Your task to perform on an android device: Open the Play Movies app and select the watchlist tab. Image 0: 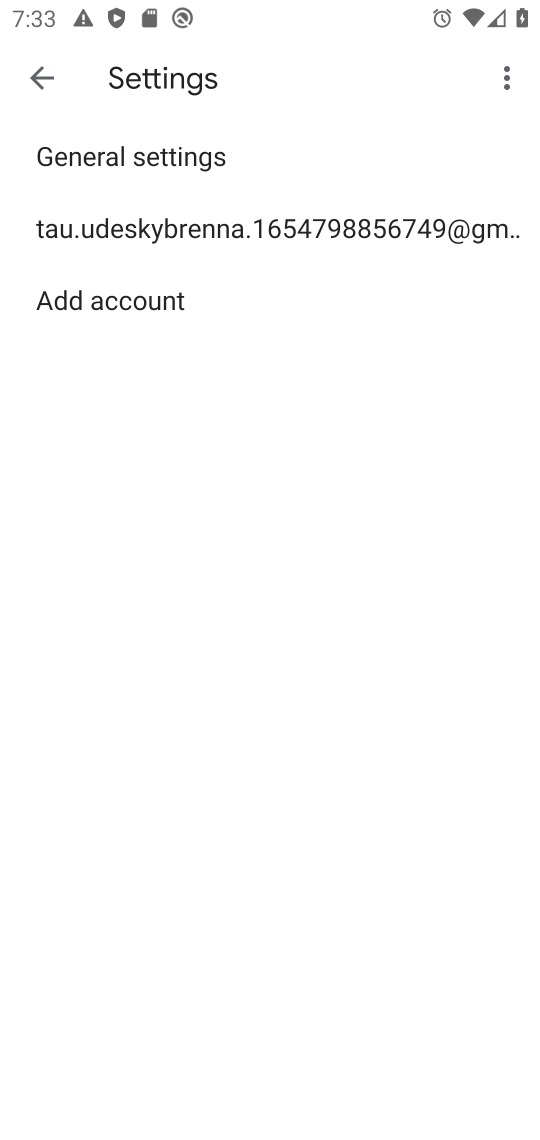
Step 0: press back button
Your task to perform on an android device: Open the Play Movies app and select the watchlist tab. Image 1: 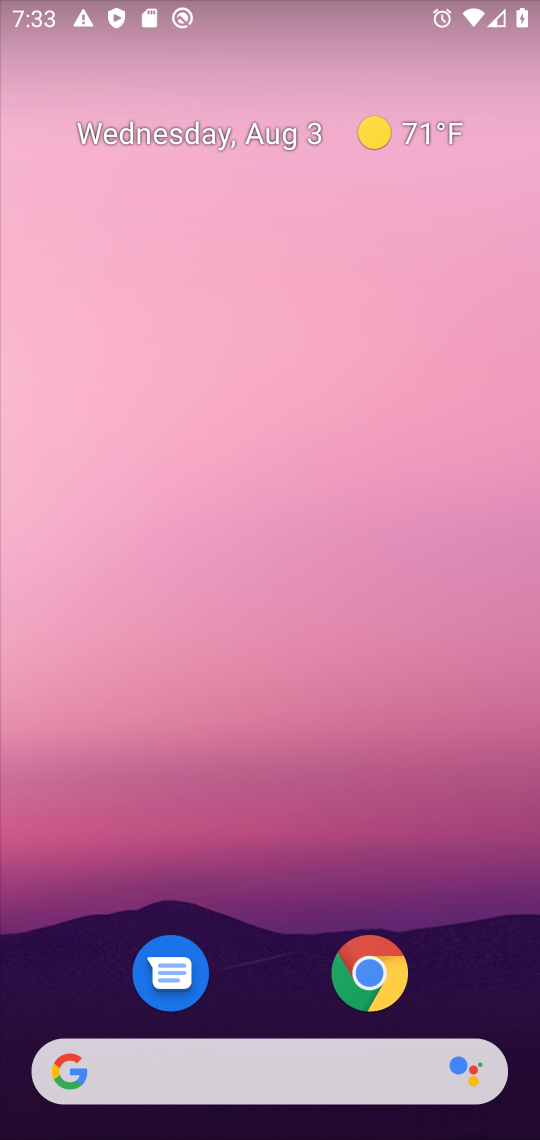
Step 1: drag from (257, 969) to (285, 198)
Your task to perform on an android device: Open the Play Movies app and select the watchlist tab. Image 2: 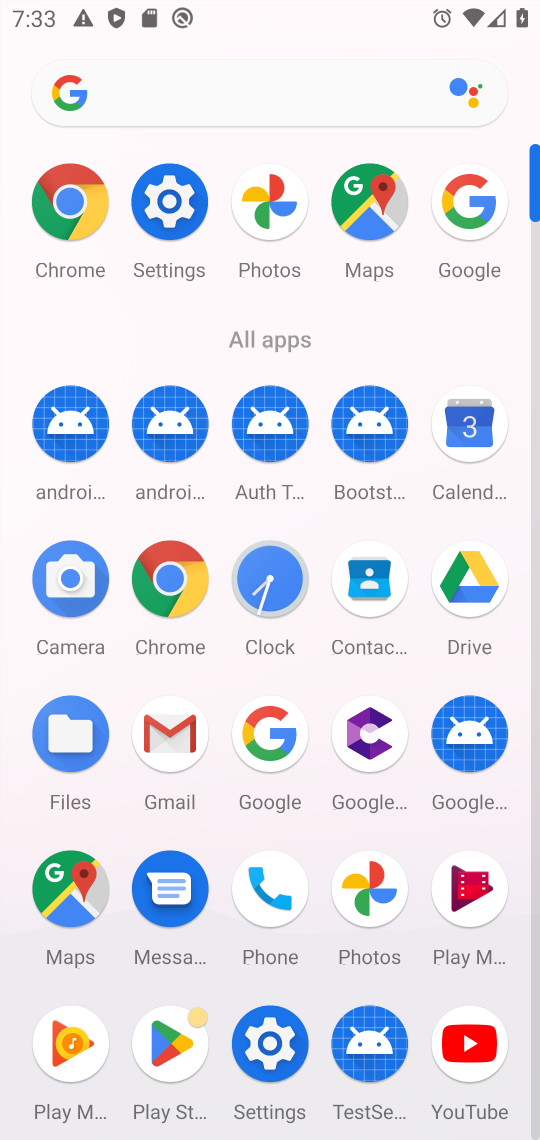
Step 2: click (461, 890)
Your task to perform on an android device: Open the Play Movies app and select the watchlist tab. Image 3: 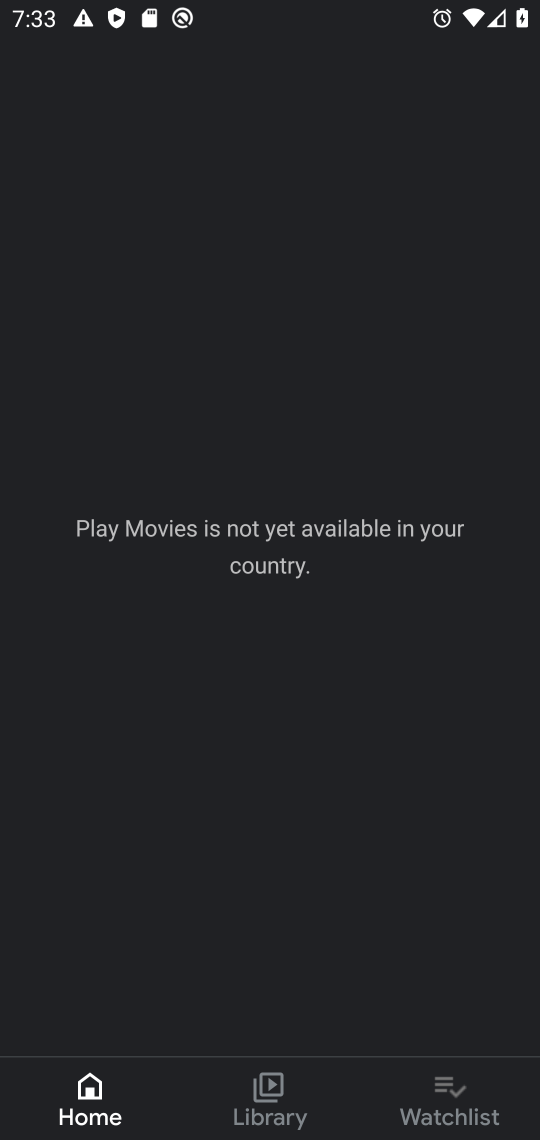
Step 3: click (418, 1108)
Your task to perform on an android device: Open the Play Movies app and select the watchlist tab. Image 4: 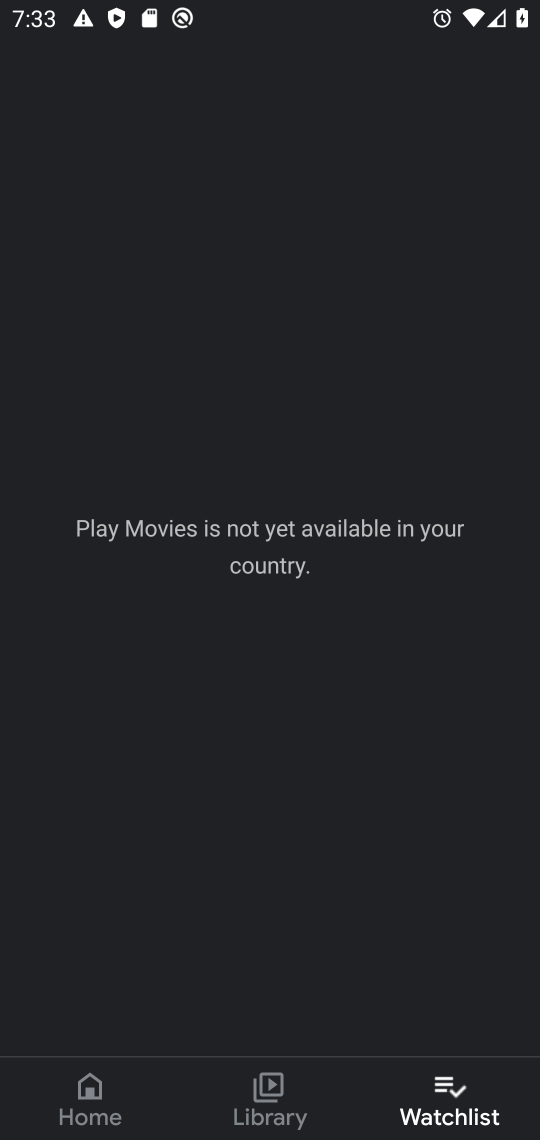
Step 4: task complete